Your task to perform on an android device: Open wifi settings Image 0: 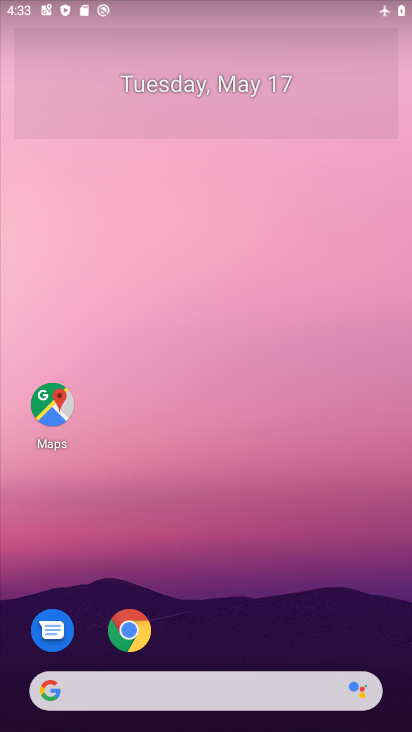
Step 0: drag from (214, 724) to (224, 201)
Your task to perform on an android device: Open wifi settings Image 1: 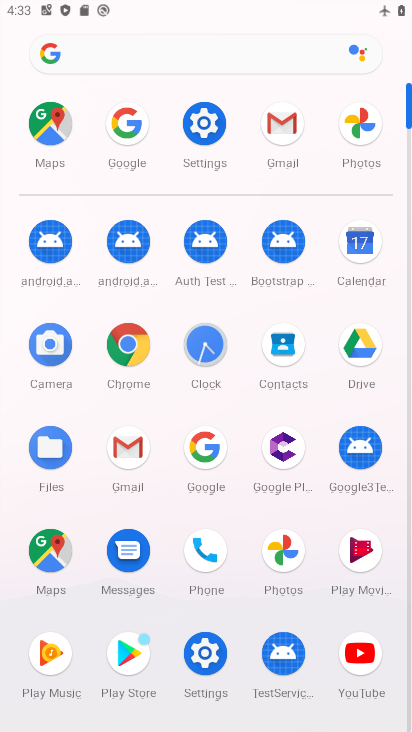
Step 1: click (201, 118)
Your task to perform on an android device: Open wifi settings Image 2: 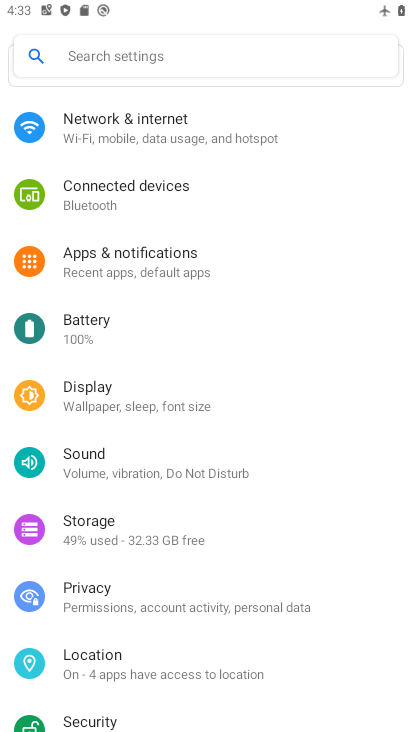
Step 2: click (118, 132)
Your task to perform on an android device: Open wifi settings Image 3: 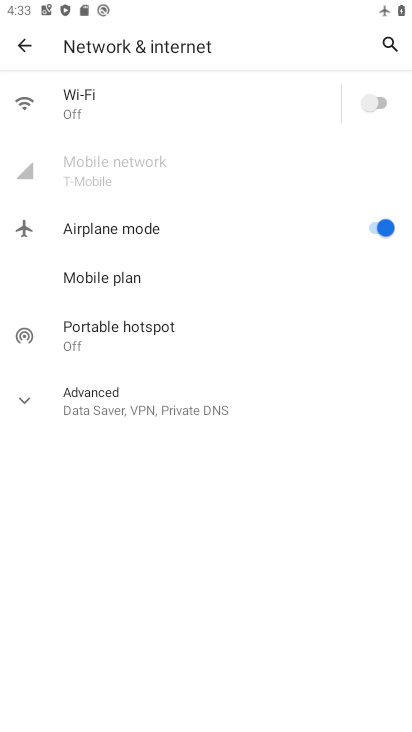
Step 3: click (76, 97)
Your task to perform on an android device: Open wifi settings Image 4: 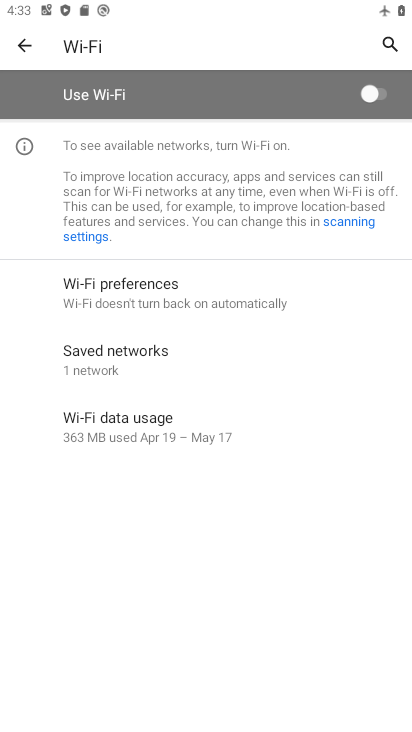
Step 4: task complete